Your task to perform on an android device: turn pop-ups on in chrome Image 0: 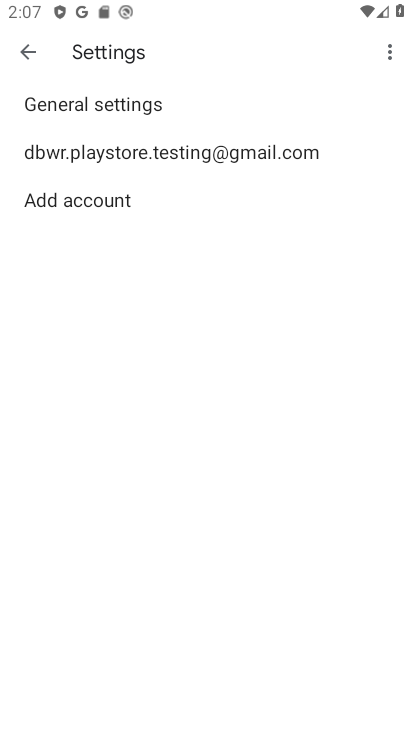
Step 0: press home button
Your task to perform on an android device: turn pop-ups on in chrome Image 1: 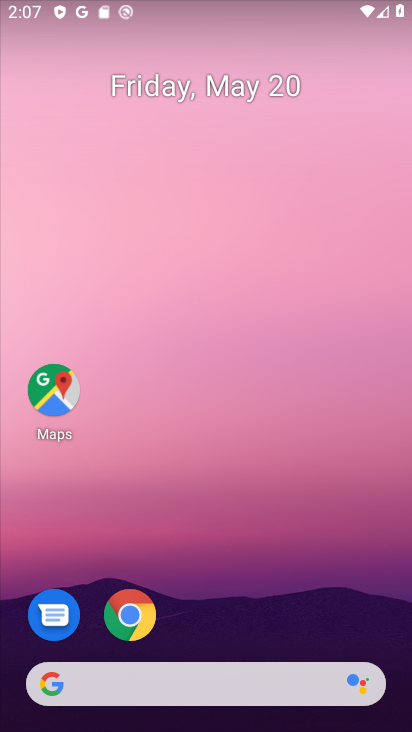
Step 1: drag from (240, 610) to (248, 157)
Your task to perform on an android device: turn pop-ups on in chrome Image 2: 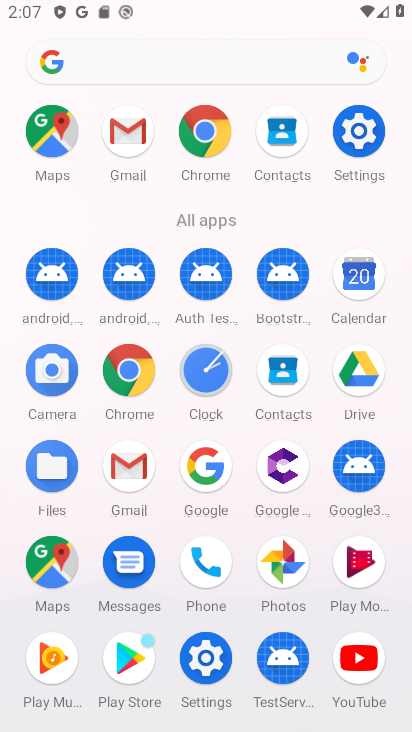
Step 2: click (201, 144)
Your task to perform on an android device: turn pop-ups on in chrome Image 3: 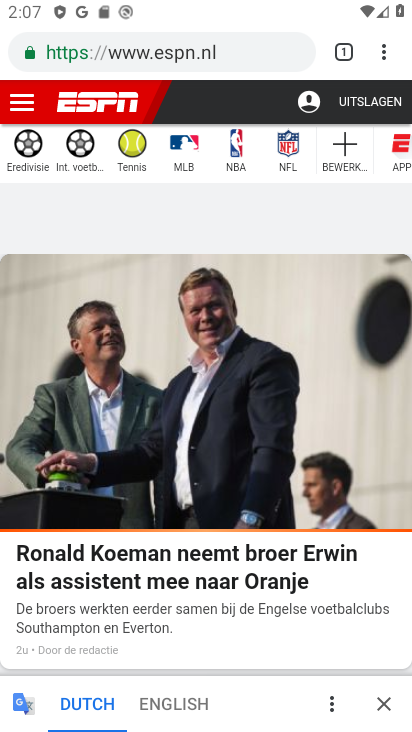
Step 3: click (384, 67)
Your task to perform on an android device: turn pop-ups on in chrome Image 4: 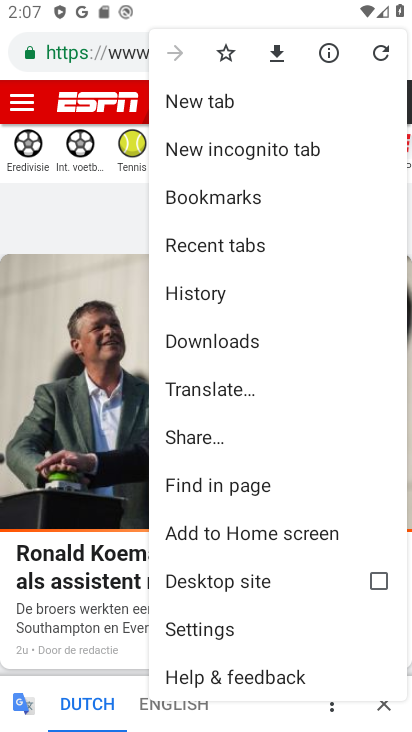
Step 4: drag from (288, 588) to (278, 388)
Your task to perform on an android device: turn pop-ups on in chrome Image 5: 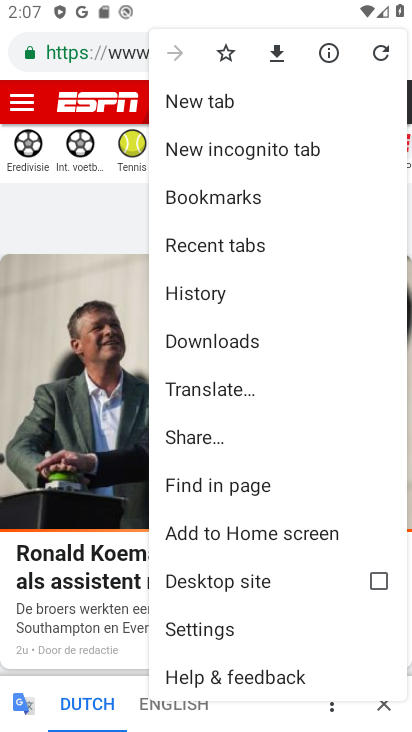
Step 5: click (259, 624)
Your task to perform on an android device: turn pop-ups on in chrome Image 6: 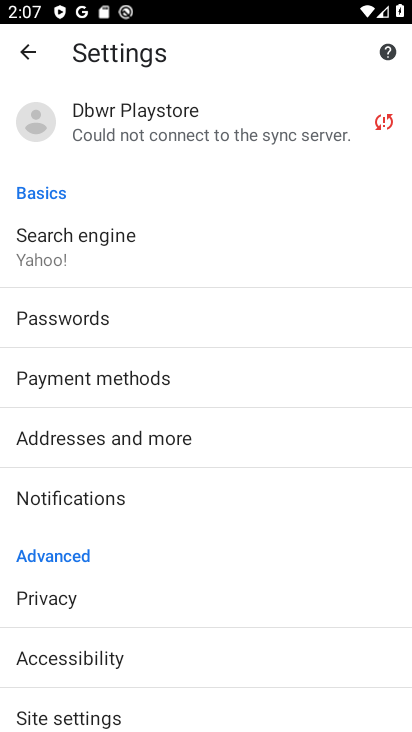
Step 6: click (246, 701)
Your task to perform on an android device: turn pop-ups on in chrome Image 7: 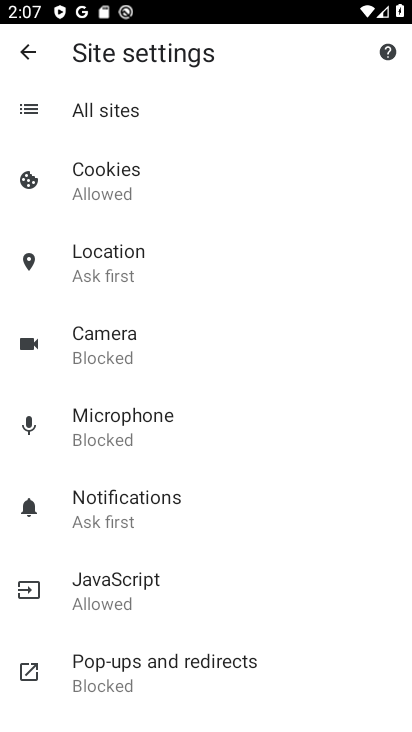
Step 7: click (261, 671)
Your task to perform on an android device: turn pop-ups on in chrome Image 8: 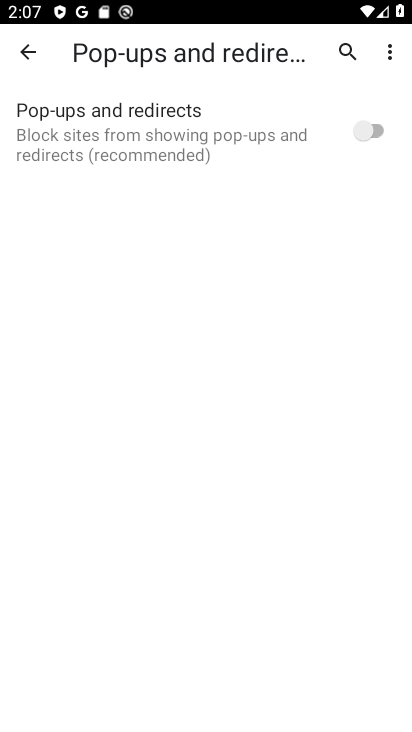
Step 8: click (384, 138)
Your task to perform on an android device: turn pop-ups on in chrome Image 9: 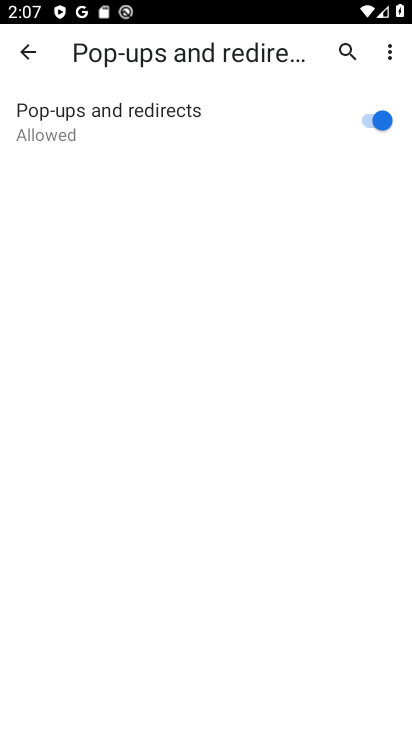
Step 9: task complete